Your task to perform on an android device: open a bookmark in the chrome app Image 0: 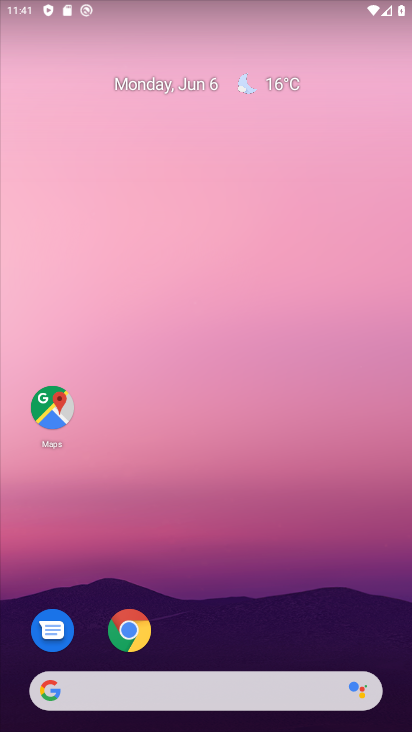
Step 0: click (130, 628)
Your task to perform on an android device: open a bookmark in the chrome app Image 1: 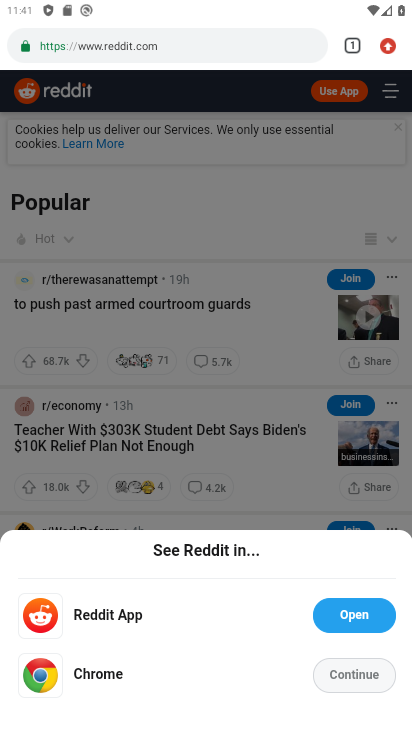
Step 1: task complete